Your task to perform on an android device: Open CNN.com Image 0: 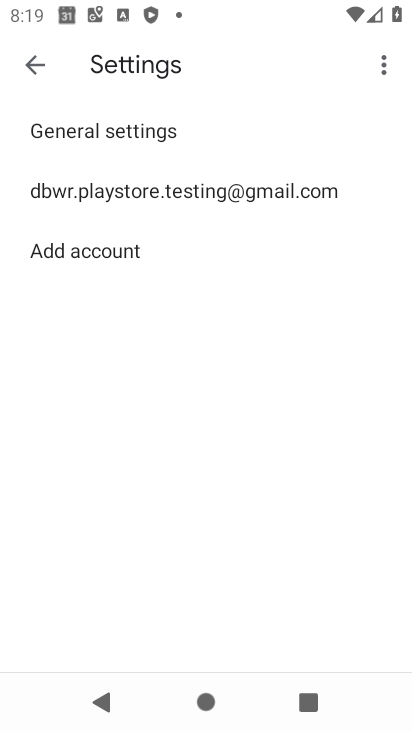
Step 0: press home button
Your task to perform on an android device: Open CNN.com Image 1: 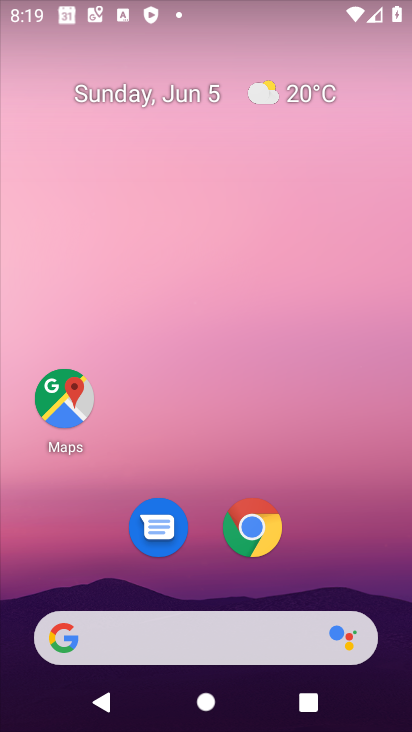
Step 1: click (151, 642)
Your task to perform on an android device: Open CNN.com Image 2: 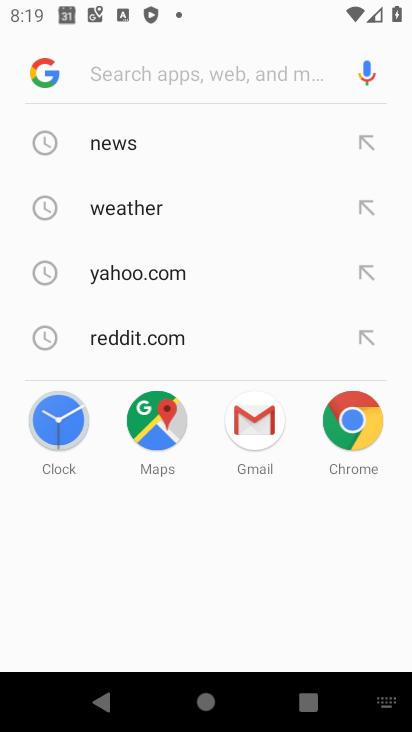
Step 2: type "cnn.com"
Your task to perform on an android device: Open CNN.com Image 3: 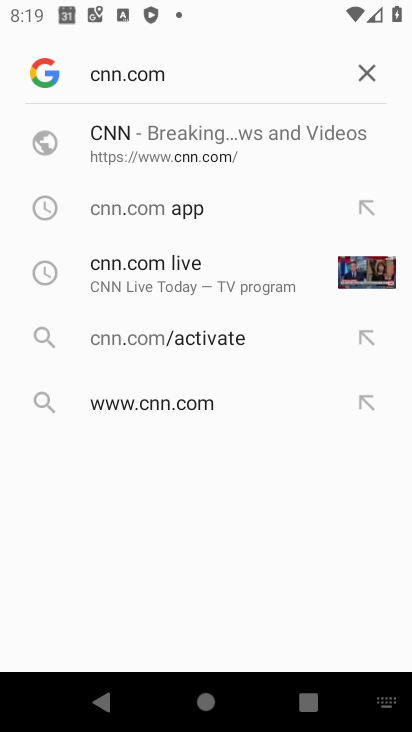
Step 3: click (202, 160)
Your task to perform on an android device: Open CNN.com Image 4: 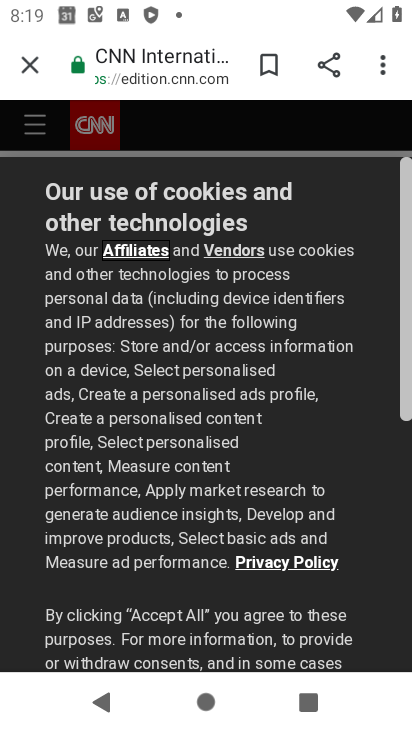
Step 4: task complete